Your task to perform on an android device: find snoozed emails in the gmail app Image 0: 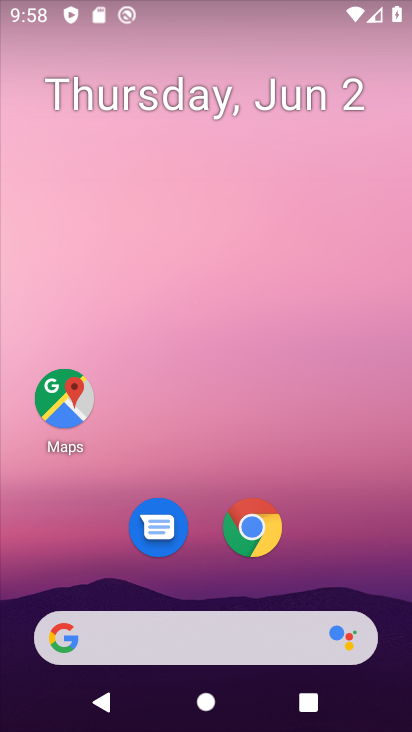
Step 0: drag from (165, 646) to (42, 75)
Your task to perform on an android device: find snoozed emails in the gmail app Image 1: 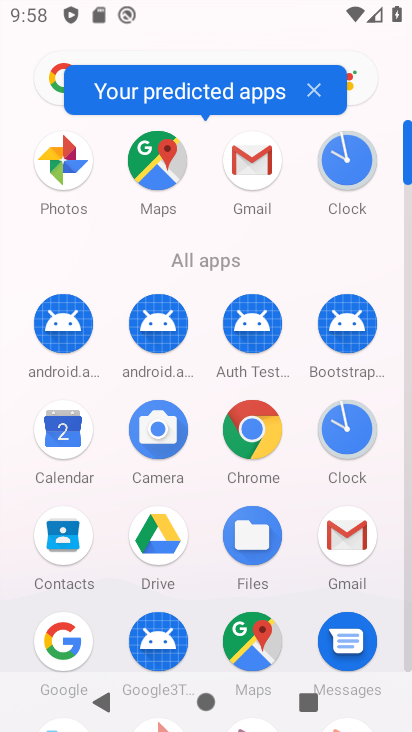
Step 1: click (336, 540)
Your task to perform on an android device: find snoozed emails in the gmail app Image 2: 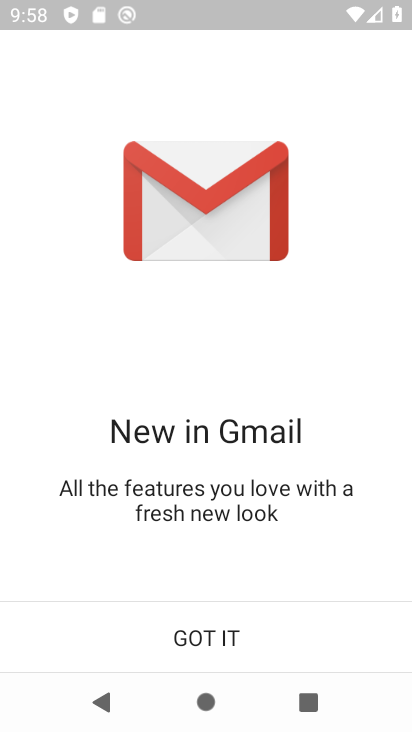
Step 2: click (222, 641)
Your task to perform on an android device: find snoozed emails in the gmail app Image 3: 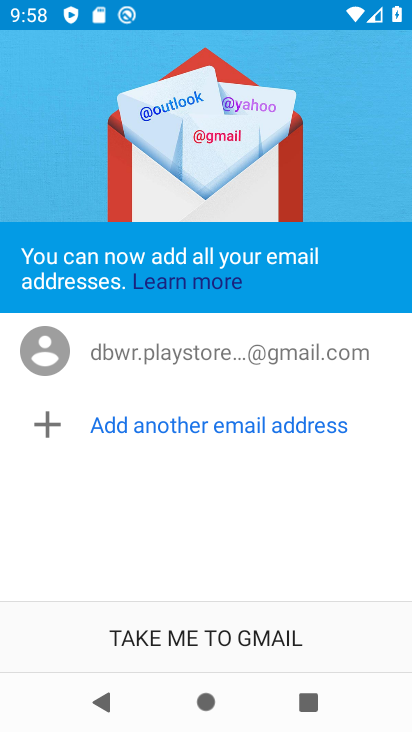
Step 3: click (222, 641)
Your task to perform on an android device: find snoozed emails in the gmail app Image 4: 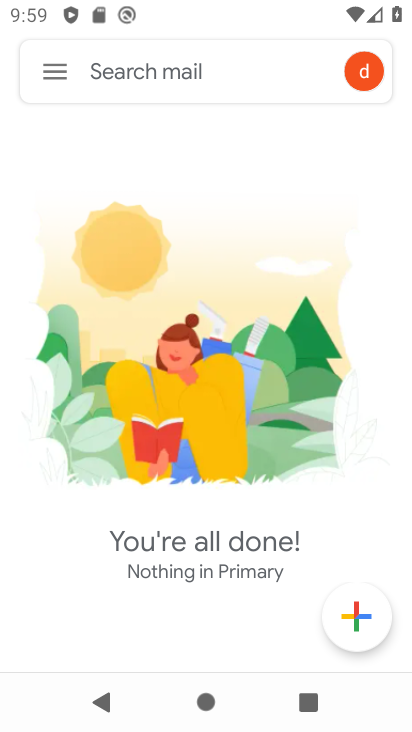
Step 4: click (64, 67)
Your task to perform on an android device: find snoozed emails in the gmail app Image 5: 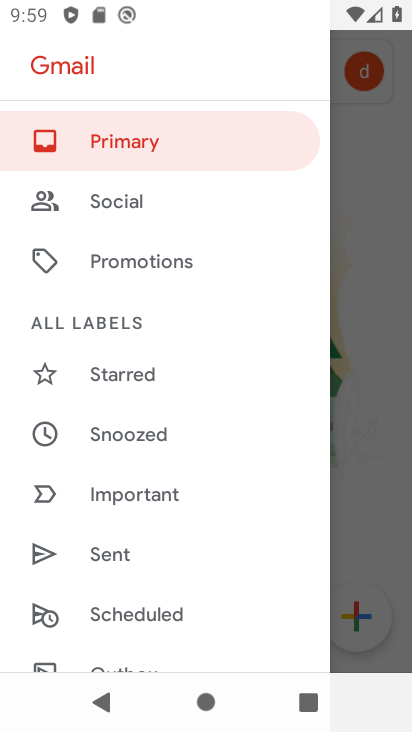
Step 5: click (120, 438)
Your task to perform on an android device: find snoozed emails in the gmail app Image 6: 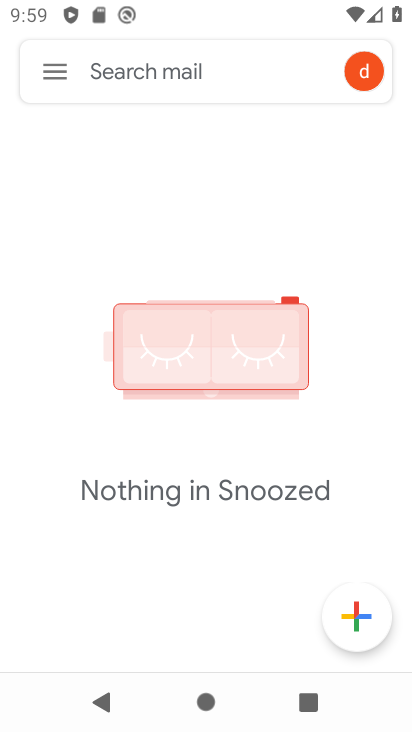
Step 6: task complete